Your task to perform on an android device: What's on my calendar today? Image 0: 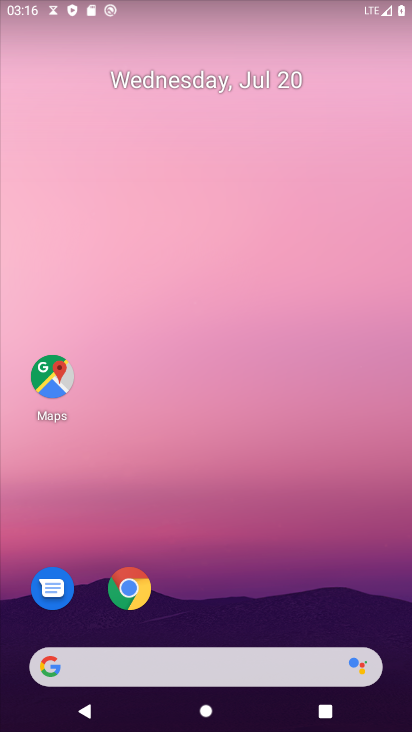
Step 0: drag from (161, 546) to (220, 146)
Your task to perform on an android device: What's on my calendar today? Image 1: 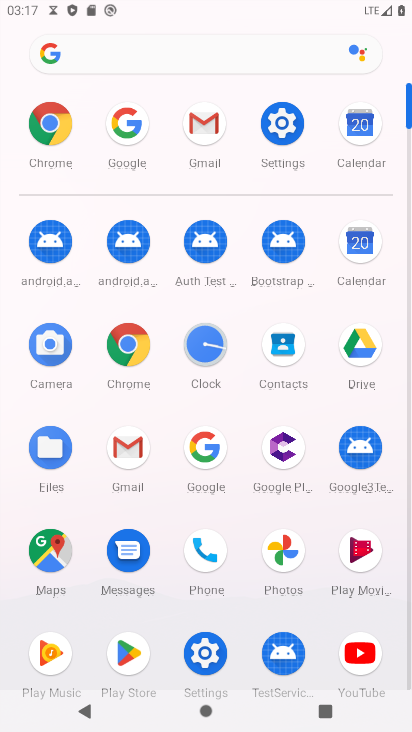
Step 1: click (354, 255)
Your task to perform on an android device: What's on my calendar today? Image 2: 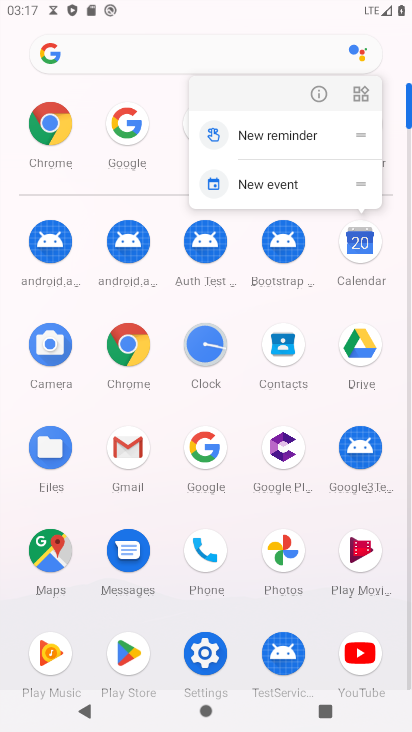
Step 2: click (320, 102)
Your task to perform on an android device: What's on my calendar today? Image 3: 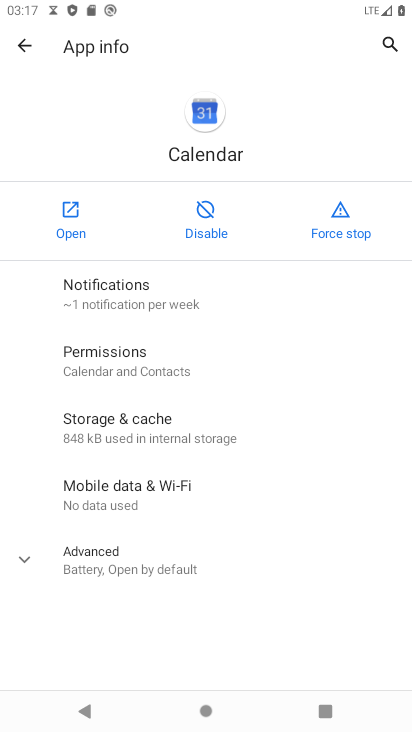
Step 3: click (75, 221)
Your task to perform on an android device: What's on my calendar today? Image 4: 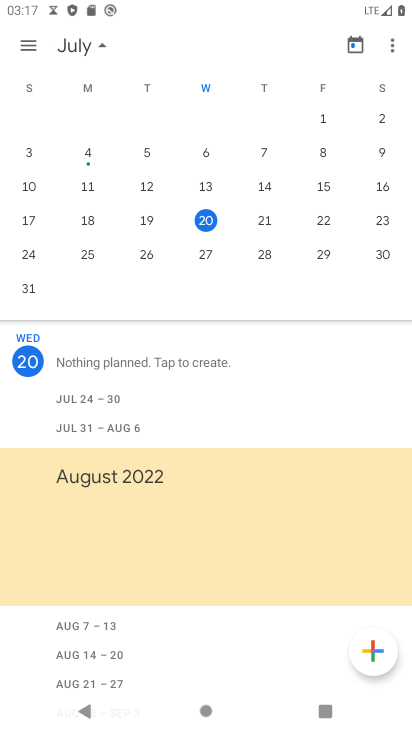
Step 4: click (357, 41)
Your task to perform on an android device: What's on my calendar today? Image 5: 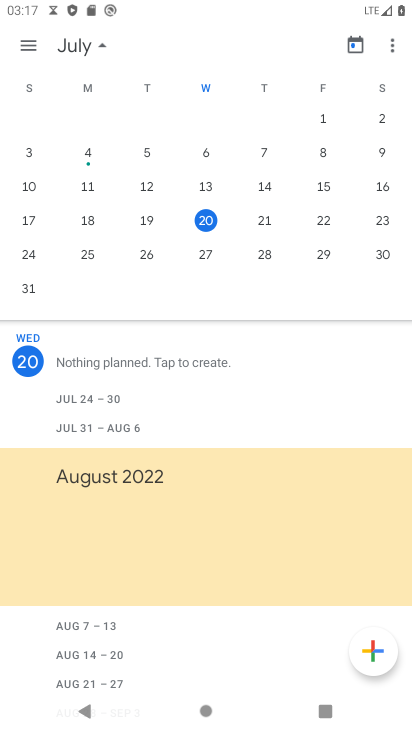
Step 5: task complete